Your task to perform on an android device: clear all cookies in the chrome app Image 0: 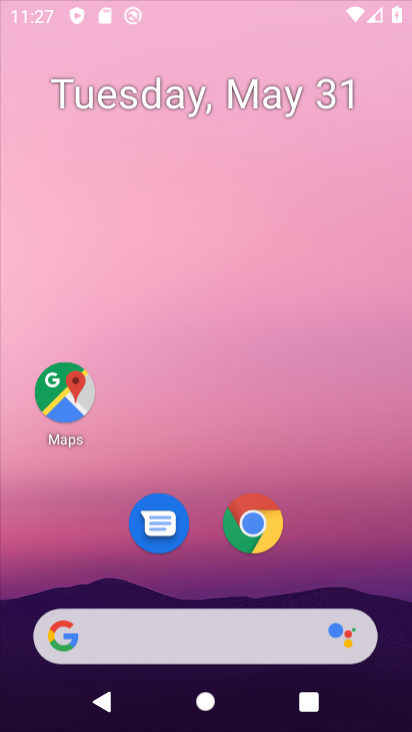
Step 0: click (226, 9)
Your task to perform on an android device: clear all cookies in the chrome app Image 1: 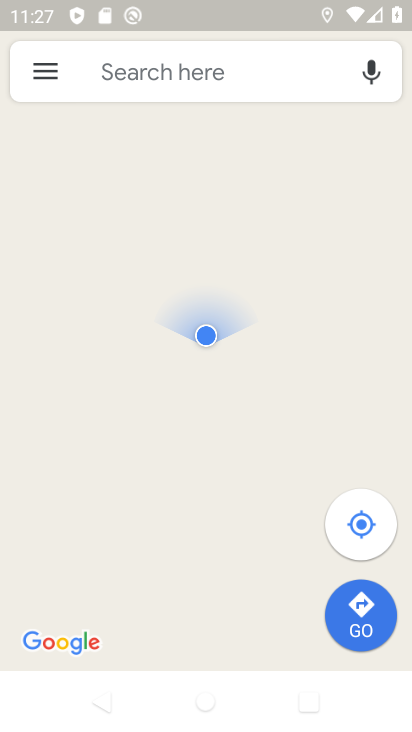
Step 1: press home button
Your task to perform on an android device: clear all cookies in the chrome app Image 2: 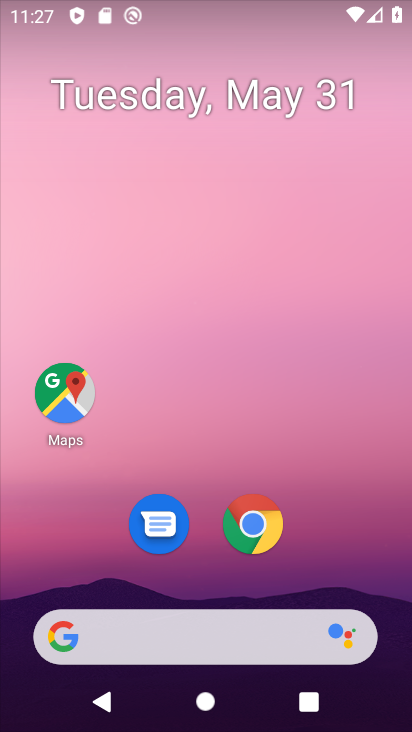
Step 2: click (246, 527)
Your task to perform on an android device: clear all cookies in the chrome app Image 3: 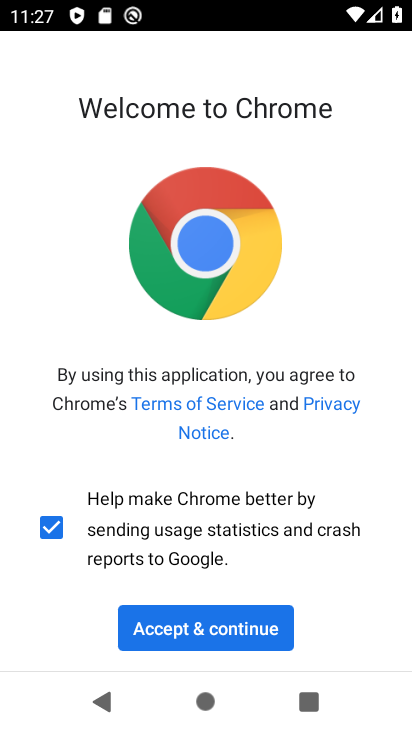
Step 3: click (247, 637)
Your task to perform on an android device: clear all cookies in the chrome app Image 4: 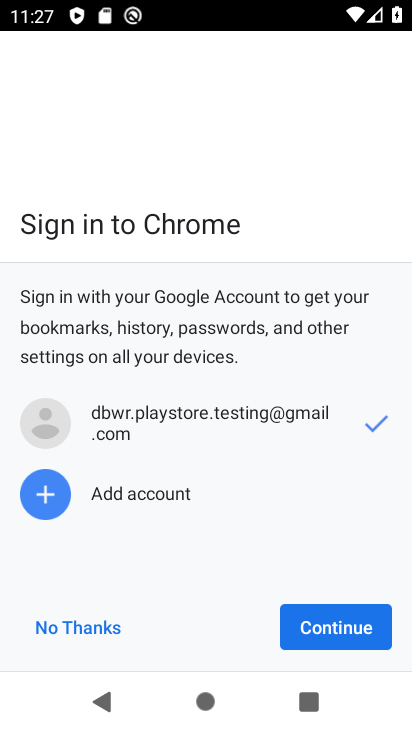
Step 4: click (322, 619)
Your task to perform on an android device: clear all cookies in the chrome app Image 5: 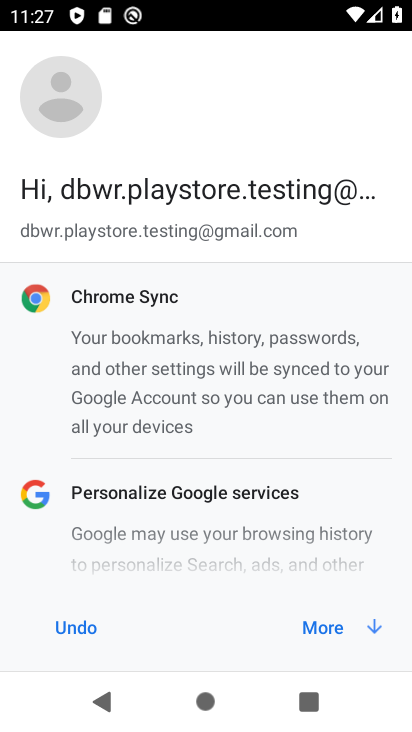
Step 5: click (322, 617)
Your task to perform on an android device: clear all cookies in the chrome app Image 6: 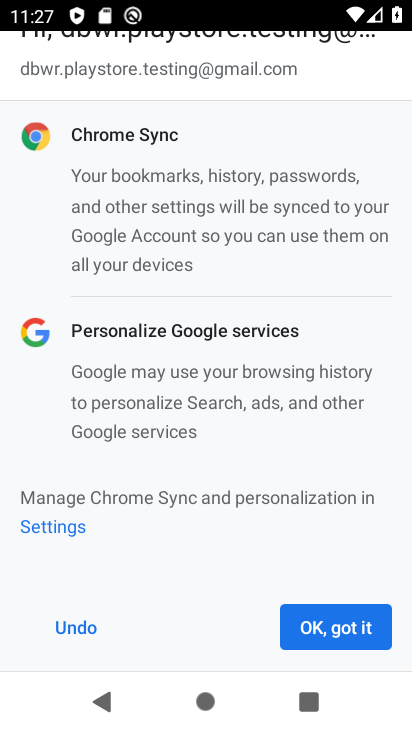
Step 6: click (322, 617)
Your task to perform on an android device: clear all cookies in the chrome app Image 7: 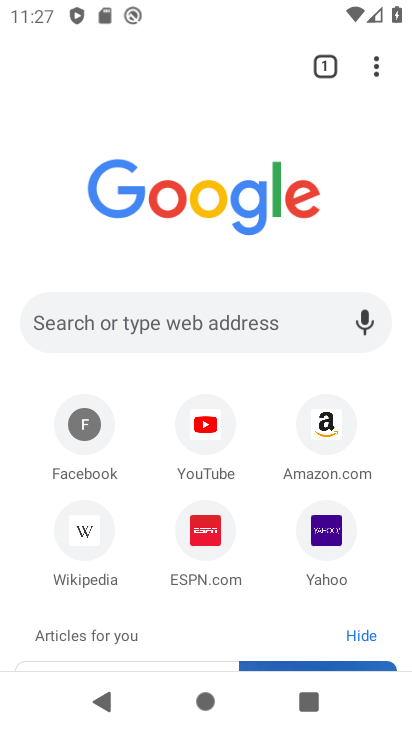
Step 7: click (377, 64)
Your task to perform on an android device: clear all cookies in the chrome app Image 8: 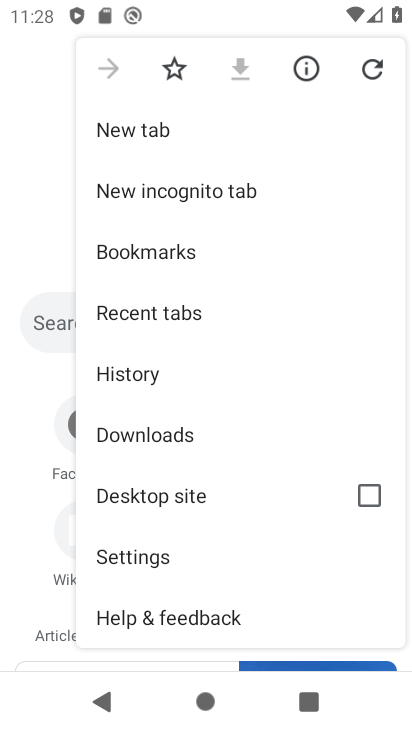
Step 8: click (170, 553)
Your task to perform on an android device: clear all cookies in the chrome app Image 9: 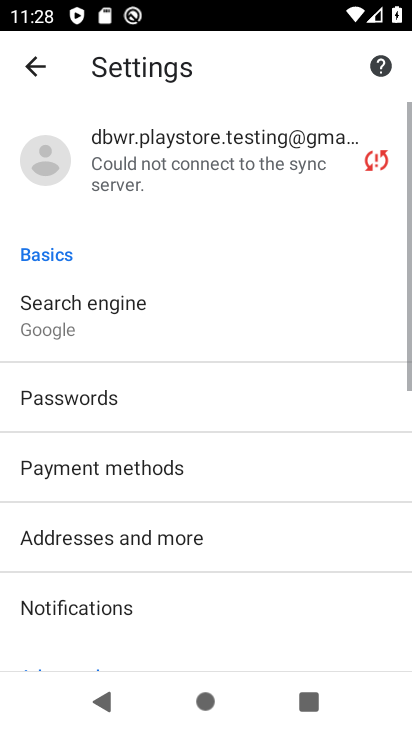
Step 9: drag from (249, 501) to (265, 255)
Your task to perform on an android device: clear all cookies in the chrome app Image 10: 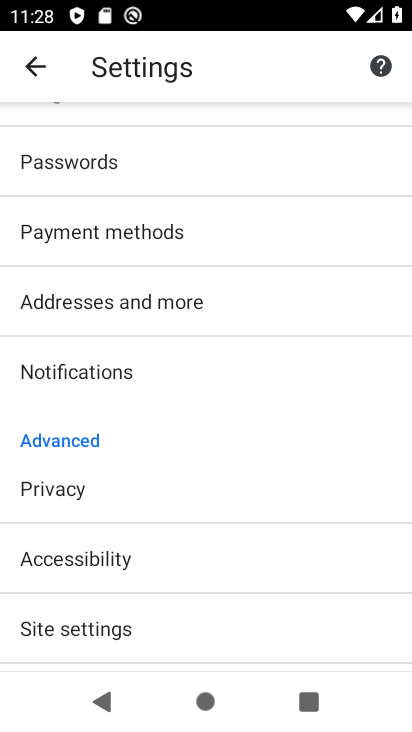
Step 10: click (123, 615)
Your task to perform on an android device: clear all cookies in the chrome app Image 11: 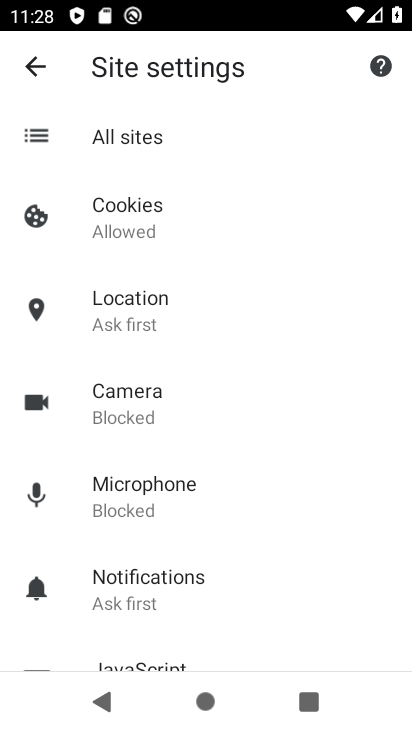
Step 11: click (31, 62)
Your task to perform on an android device: clear all cookies in the chrome app Image 12: 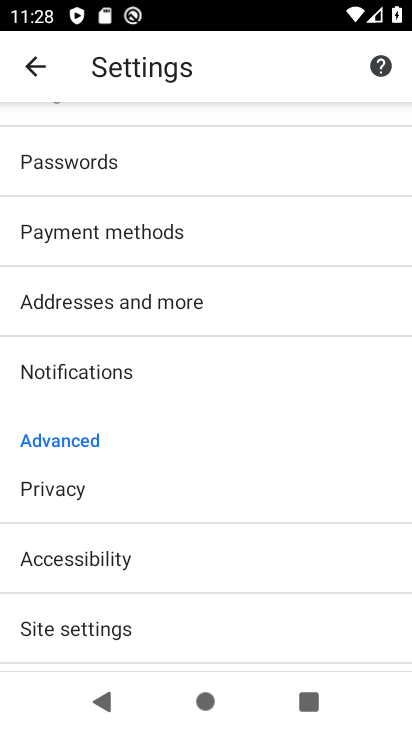
Step 12: click (161, 482)
Your task to perform on an android device: clear all cookies in the chrome app Image 13: 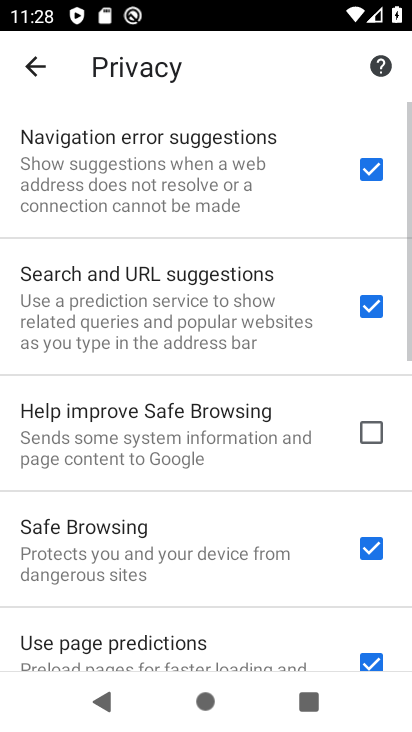
Step 13: drag from (256, 610) to (262, 33)
Your task to perform on an android device: clear all cookies in the chrome app Image 14: 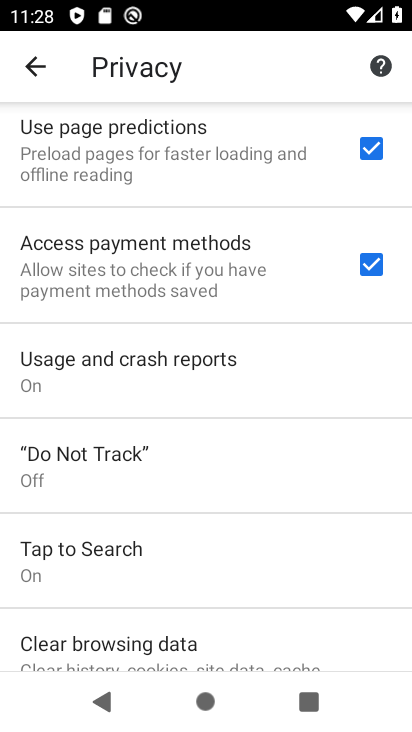
Step 14: click (242, 637)
Your task to perform on an android device: clear all cookies in the chrome app Image 15: 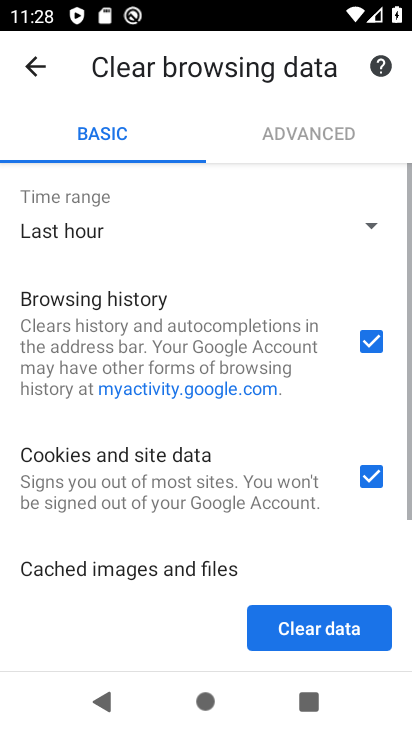
Step 15: click (366, 331)
Your task to perform on an android device: clear all cookies in the chrome app Image 16: 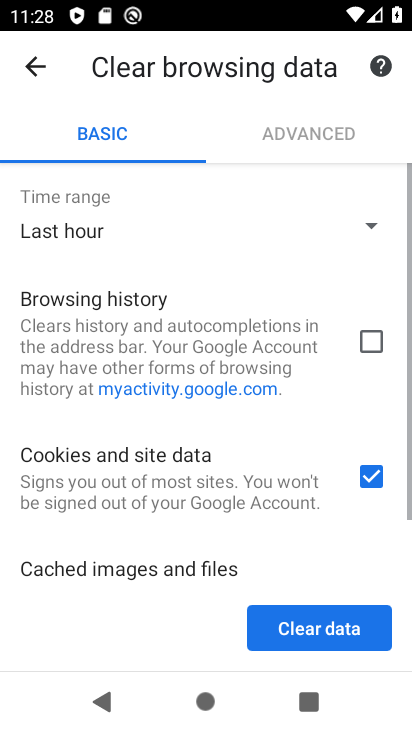
Step 16: drag from (294, 477) to (295, 361)
Your task to perform on an android device: clear all cookies in the chrome app Image 17: 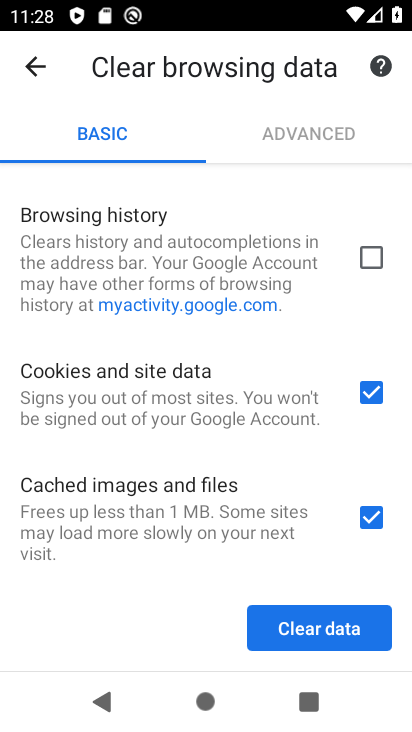
Step 17: click (364, 515)
Your task to perform on an android device: clear all cookies in the chrome app Image 18: 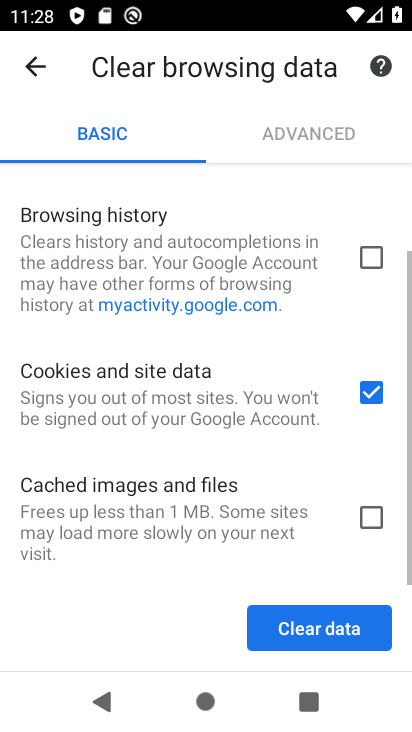
Step 18: click (348, 626)
Your task to perform on an android device: clear all cookies in the chrome app Image 19: 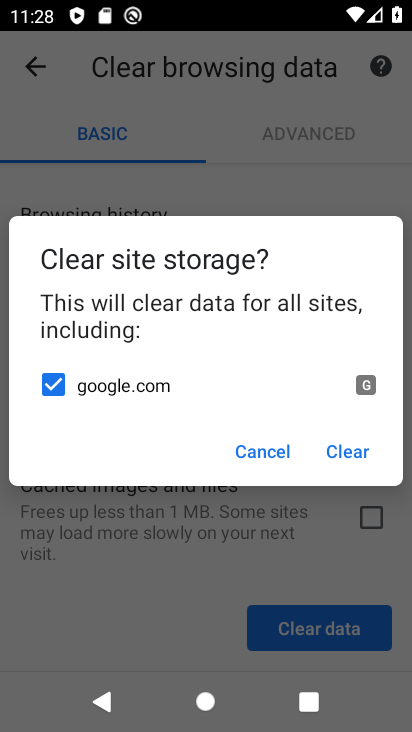
Step 19: click (355, 456)
Your task to perform on an android device: clear all cookies in the chrome app Image 20: 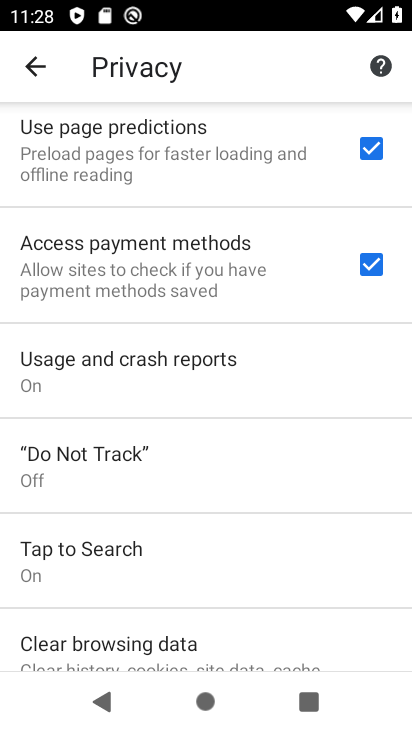
Step 20: task complete